Your task to perform on an android device: toggle priority inbox in the gmail app Image 0: 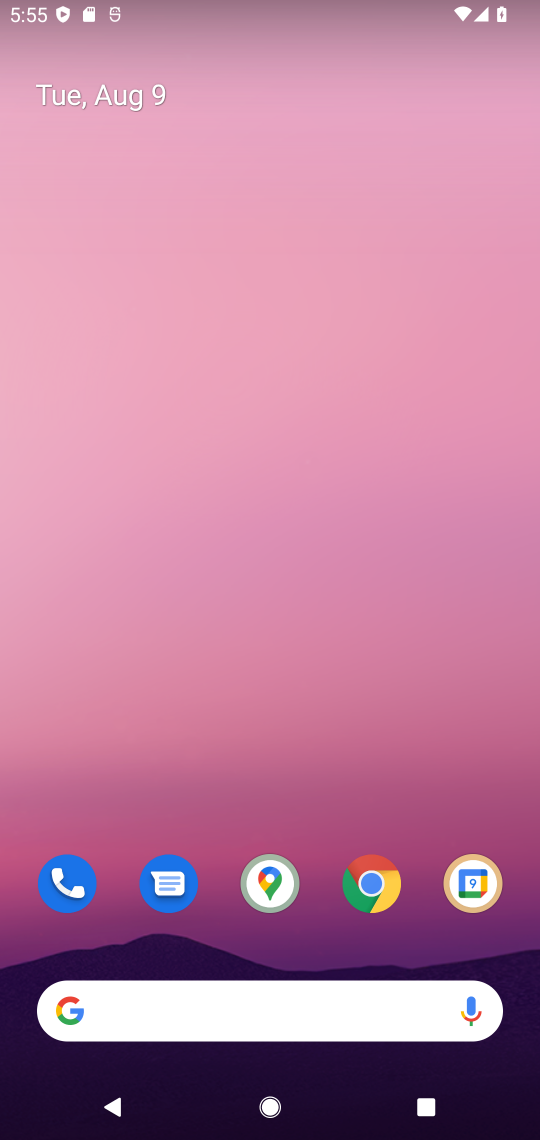
Step 0: drag from (300, 540) to (300, 254)
Your task to perform on an android device: toggle priority inbox in the gmail app Image 1: 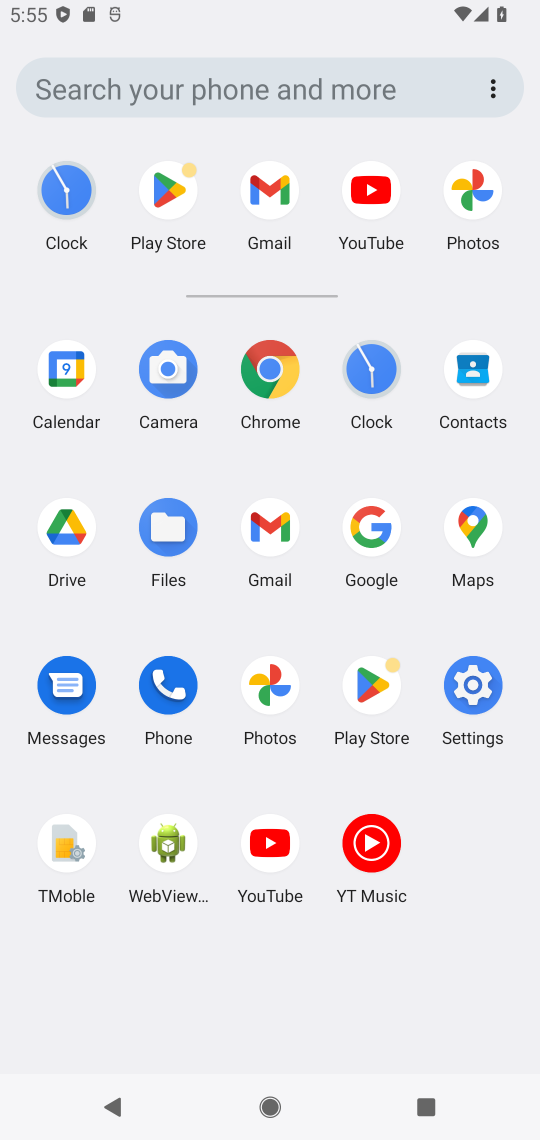
Step 1: click (276, 546)
Your task to perform on an android device: toggle priority inbox in the gmail app Image 2: 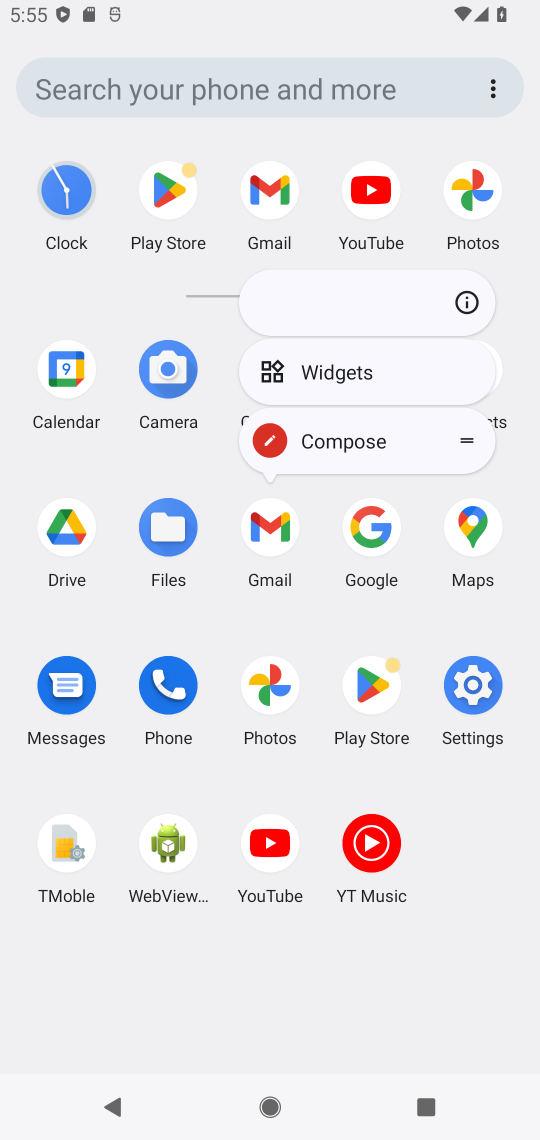
Step 2: click (276, 546)
Your task to perform on an android device: toggle priority inbox in the gmail app Image 3: 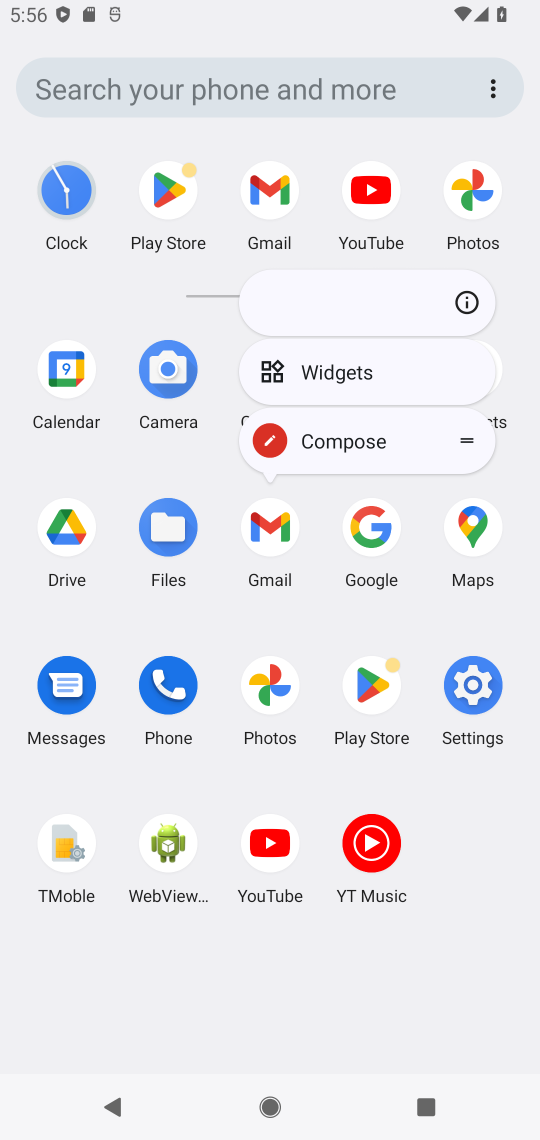
Step 3: click (276, 546)
Your task to perform on an android device: toggle priority inbox in the gmail app Image 4: 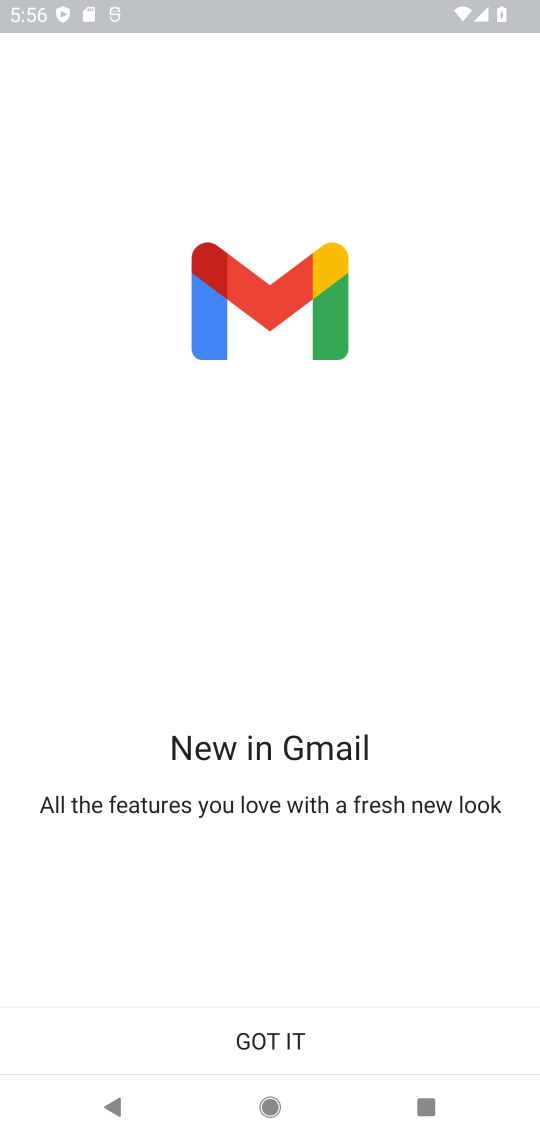
Step 4: click (381, 1020)
Your task to perform on an android device: toggle priority inbox in the gmail app Image 5: 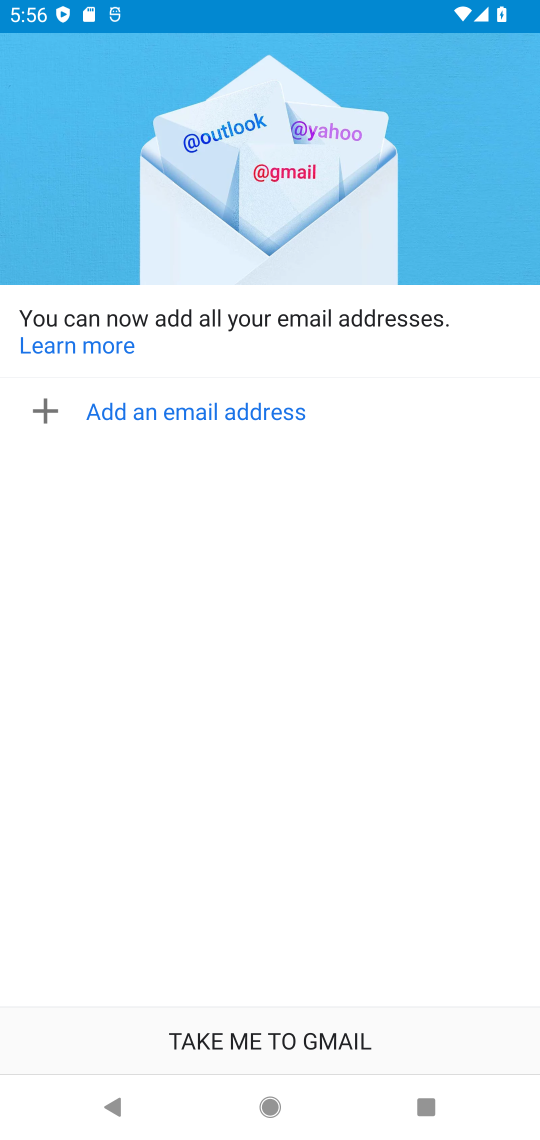
Step 5: click (285, 1035)
Your task to perform on an android device: toggle priority inbox in the gmail app Image 6: 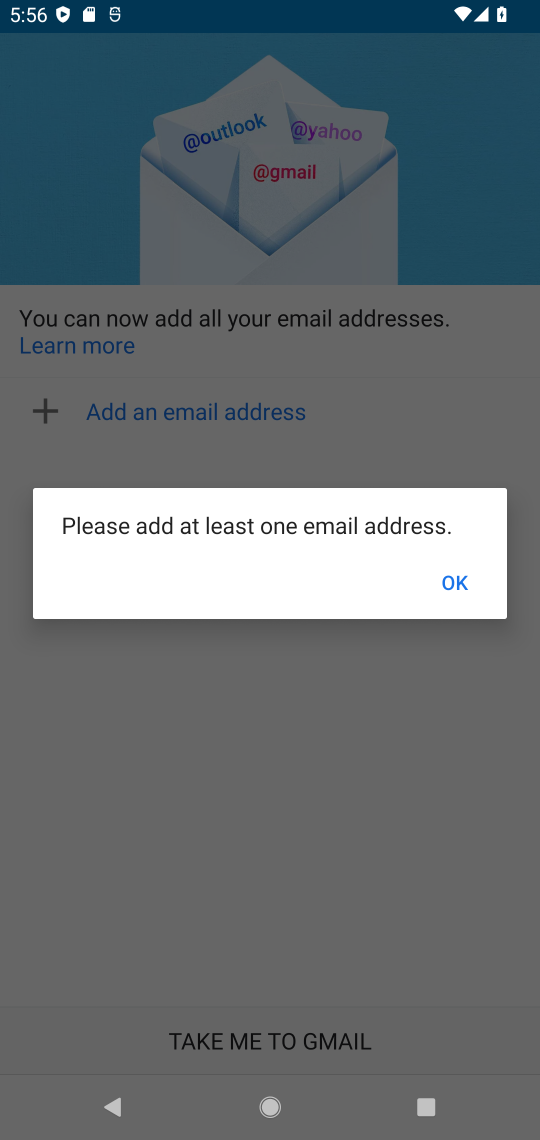
Step 6: click (447, 576)
Your task to perform on an android device: toggle priority inbox in the gmail app Image 7: 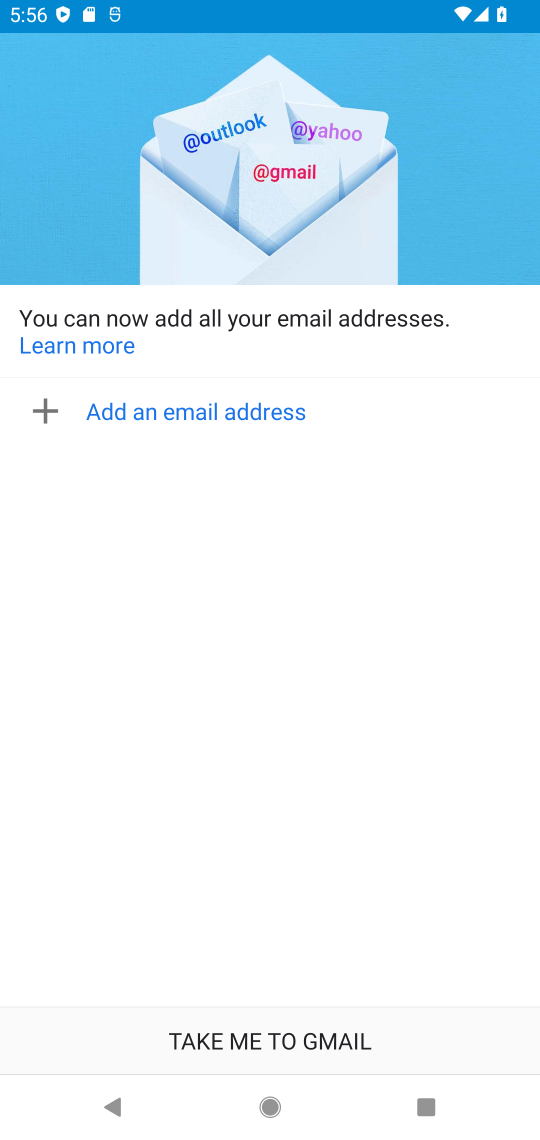
Step 7: press home button
Your task to perform on an android device: toggle priority inbox in the gmail app Image 8: 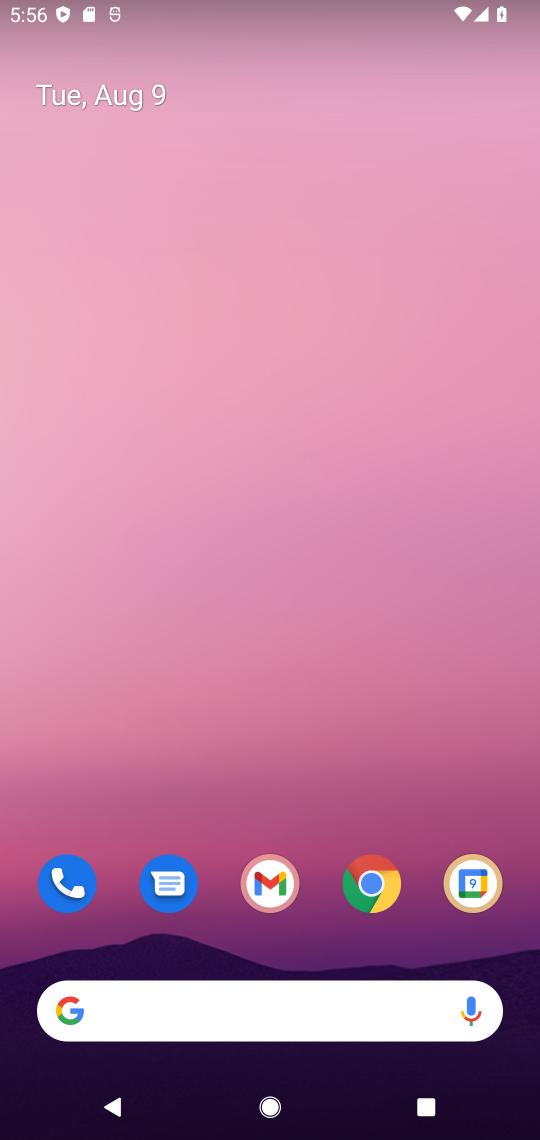
Step 8: click (257, 876)
Your task to perform on an android device: toggle priority inbox in the gmail app Image 9: 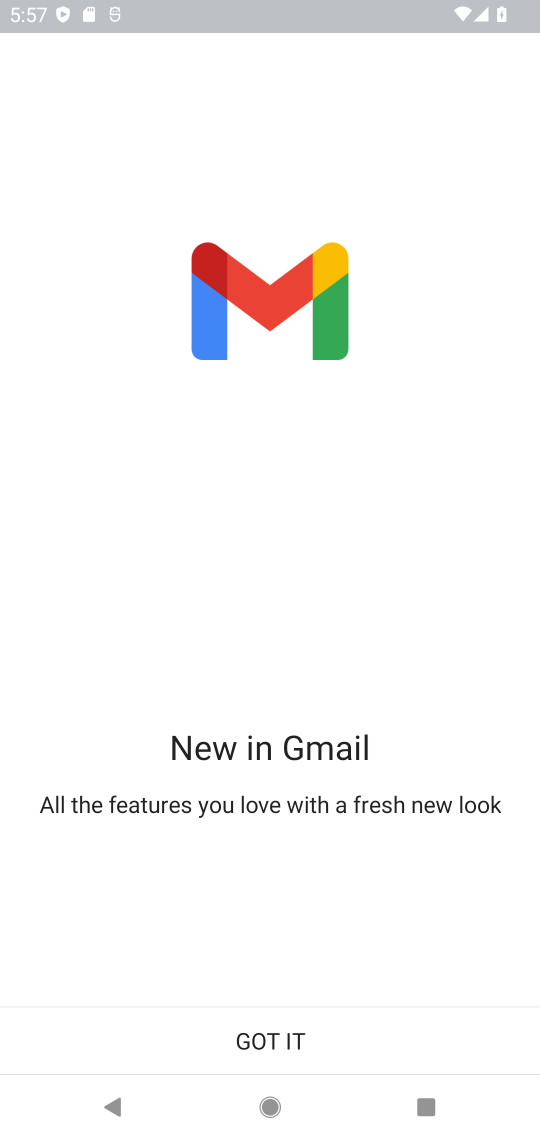
Step 9: click (299, 1013)
Your task to perform on an android device: toggle priority inbox in the gmail app Image 10: 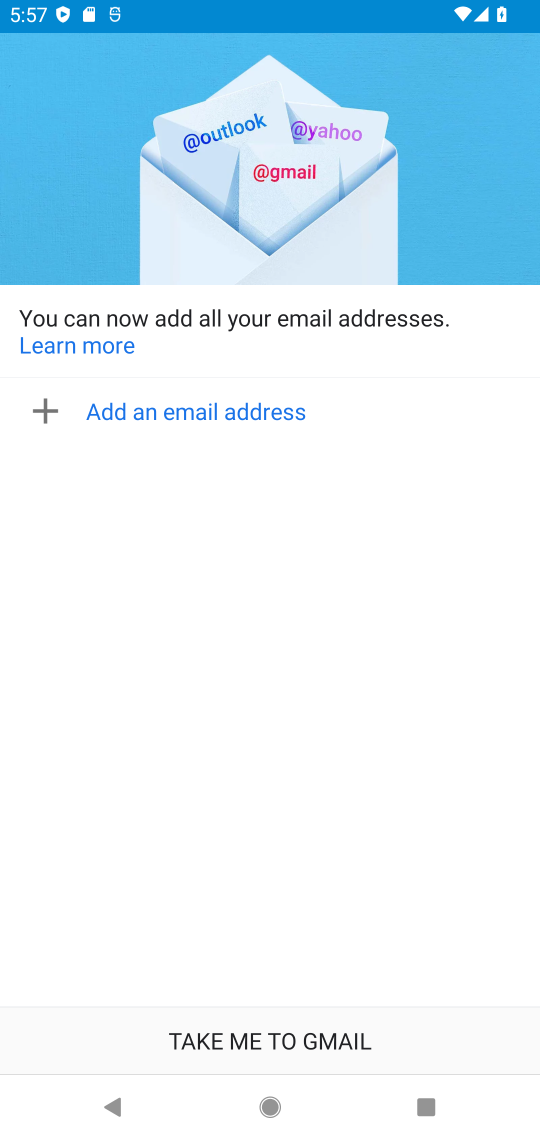
Step 10: click (308, 1017)
Your task to perform on an android device: toggle priority inbox in the gmail app Image 11: 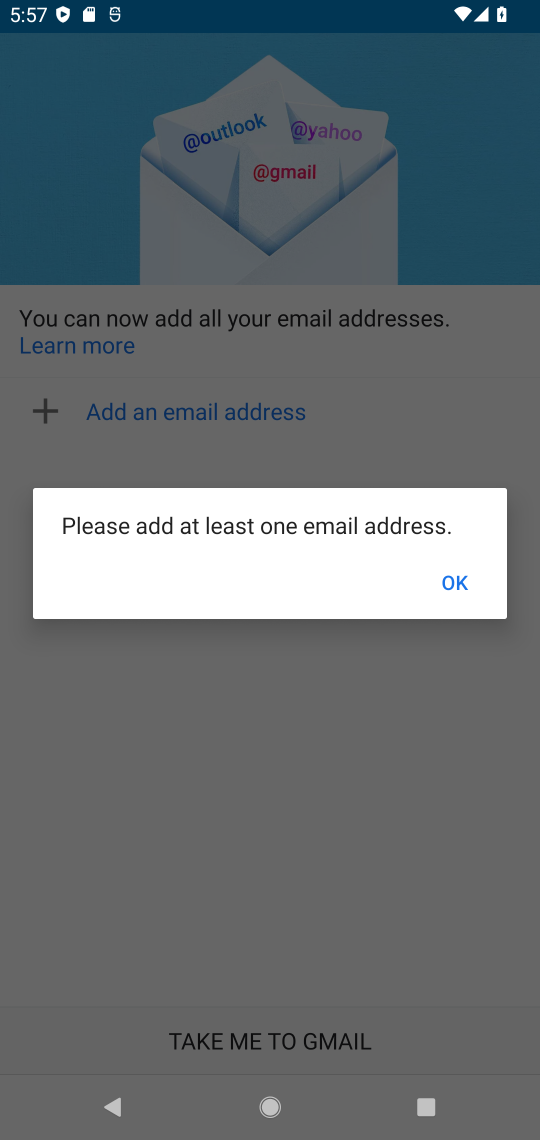
Step 11: click (435, 584)
Your task to perform on an android device: toggle priority inbox in the gmail app Image 12: 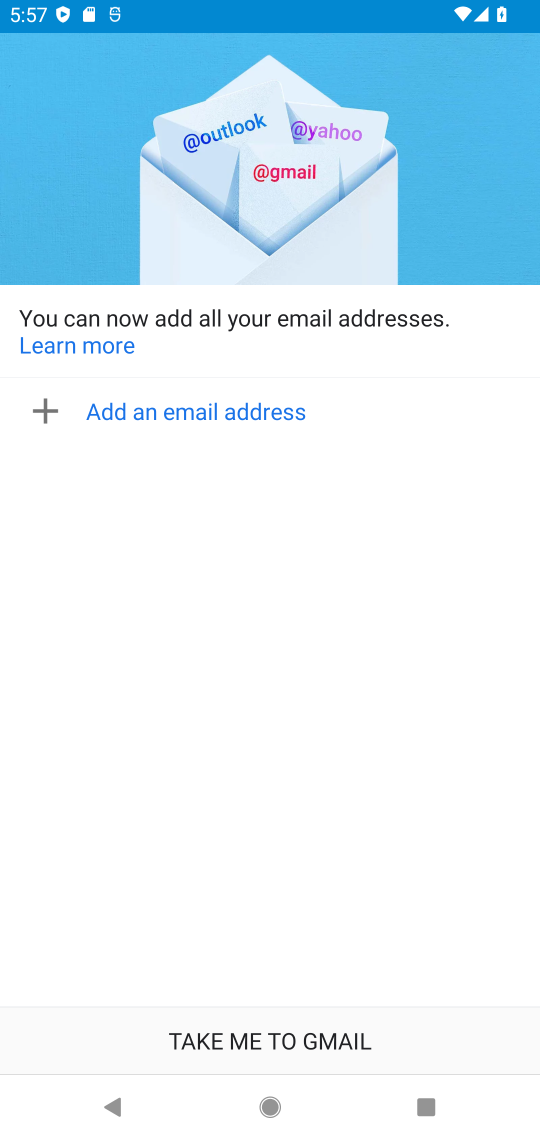
Step 12: click (337, 1044)
Your task to perform on an android device: toggle priority inbox in the gmail app Image 13: 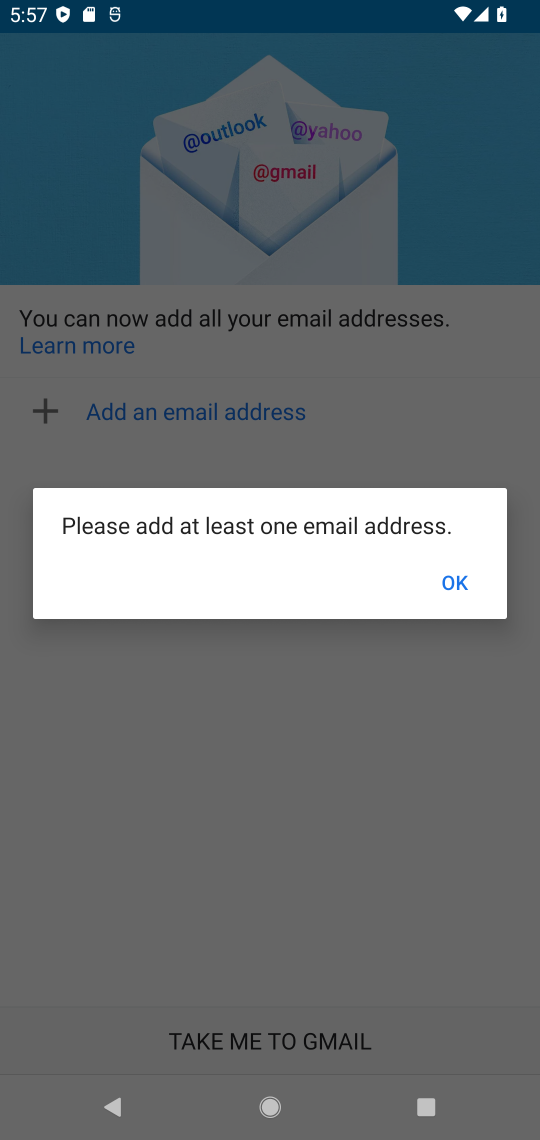
Step 13: click (452, 597)
Your task to perform on an android device: toggle priority inbox in the gmail app Image 14: 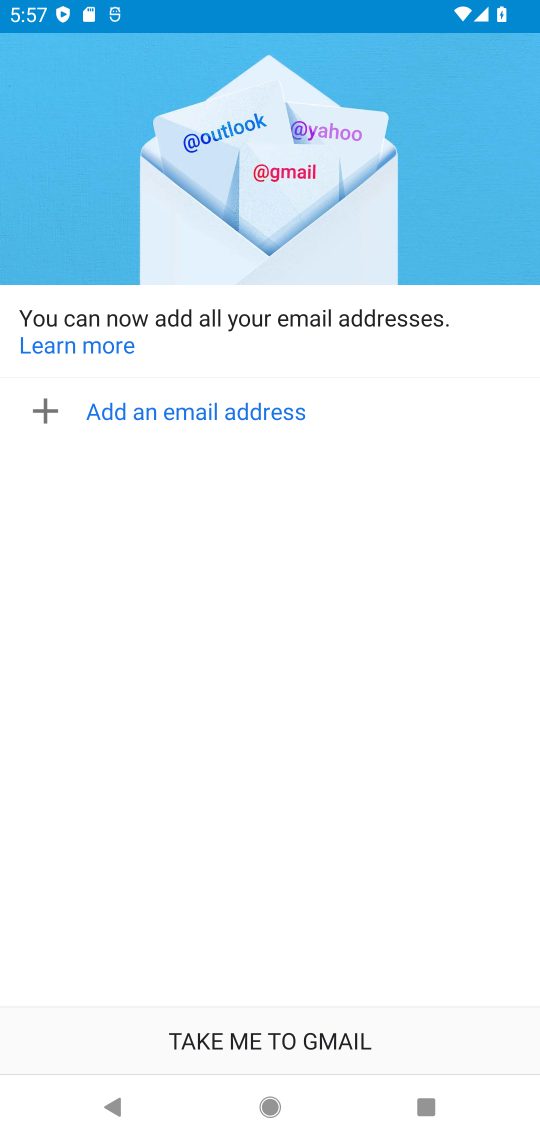
Step 14: task complete